Your task to perform on an android device: turn on priority inbox in the gmail app Image 0: 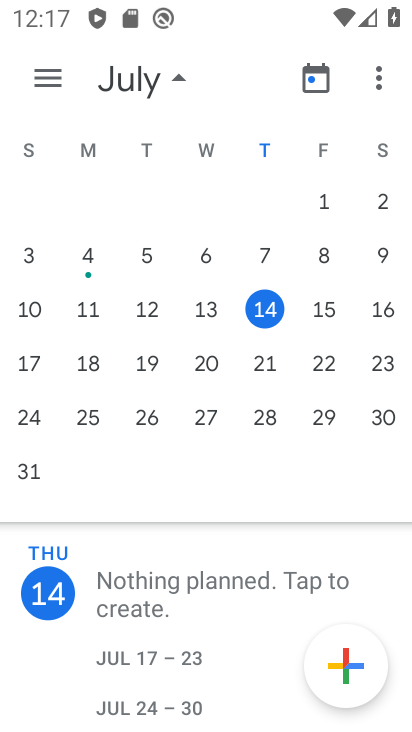
Step 0: press back button
Your task to perform on an android device: turn on priority inbox in the gmail app Image 1: 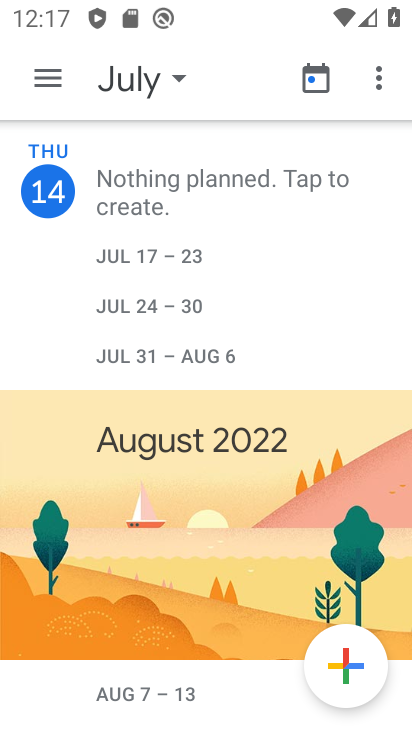
Step 1: press back button
Your task to perform on an android device: turn on priority inbox in the gmail app Image 2: 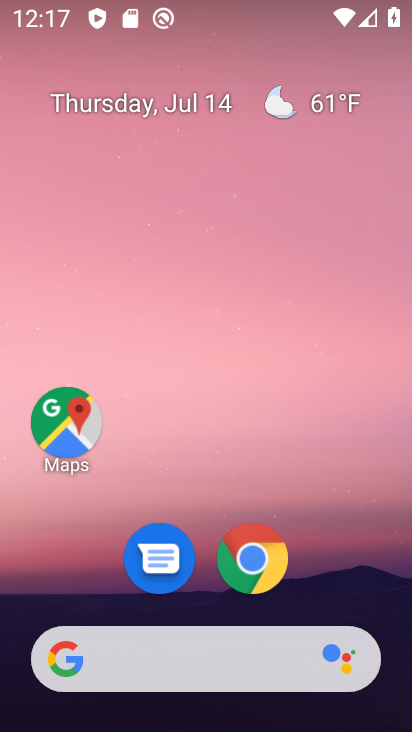
Step 2: drag from (207, 569) to (203, 55)
Your task to perform on an android device: turn on priority inbox in the gmail app Image 3: 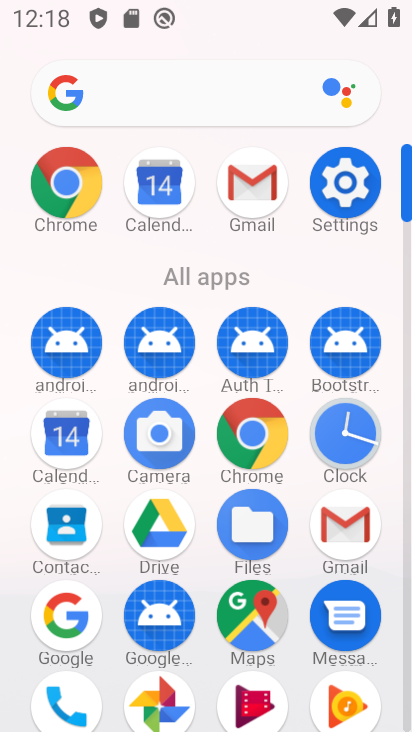
Step 3: click (252, 187)
Your task to perform on an android device: turn on priority inbox in the gmail app Image 4: 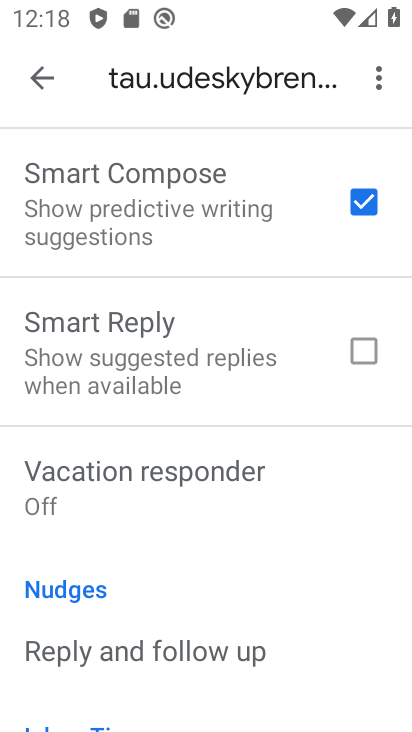
Step 4: drag from (265, 231) to (179, 728)
Your task to perform on an android device: turn on priority inbox in the gmail app Image 5: 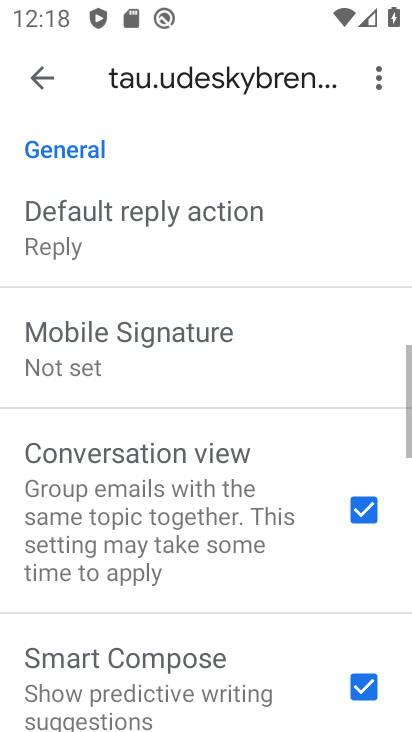
Step 5: drag from (176, 242) to (113, 731)
Your task to perform on an android device: turn on priority inbox in the gmail app Image 6: 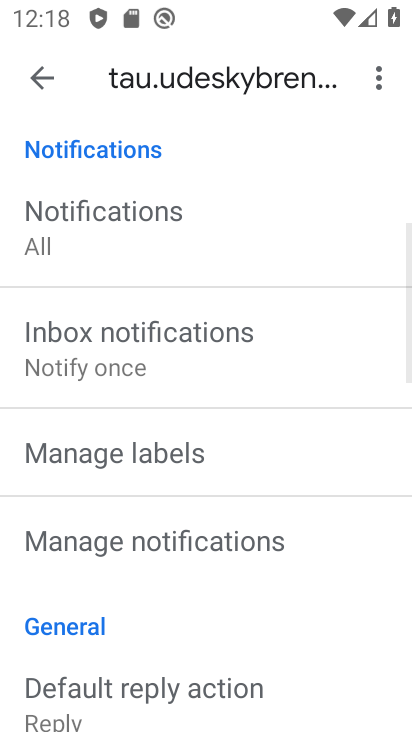
Step 6: drag from (142, 191) to (144, 684)
Your task to perform on an android device: turn on priority inbox in the gmail app Image 7: 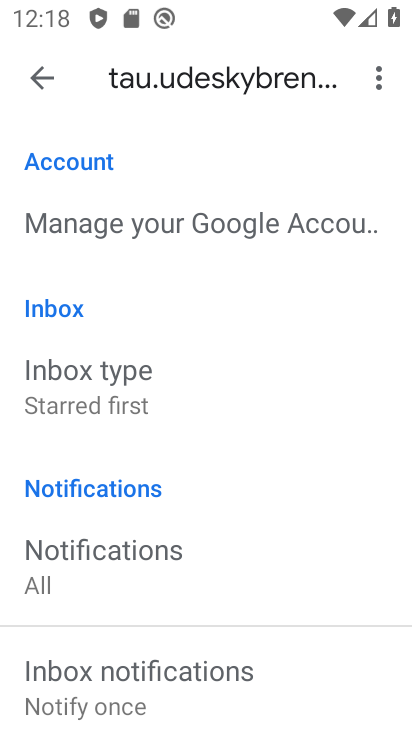
Step 7: click (102, 391)
Your task to perform on an android device: turn on priority inbox in the gmail app Image 8: 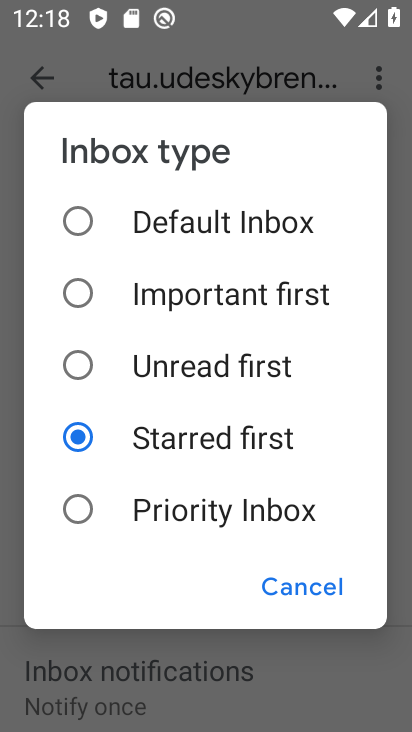
Step 8: click (77, 507)
Your task to perform on an android device: turn on priority inbox in the gmail app Image 9: 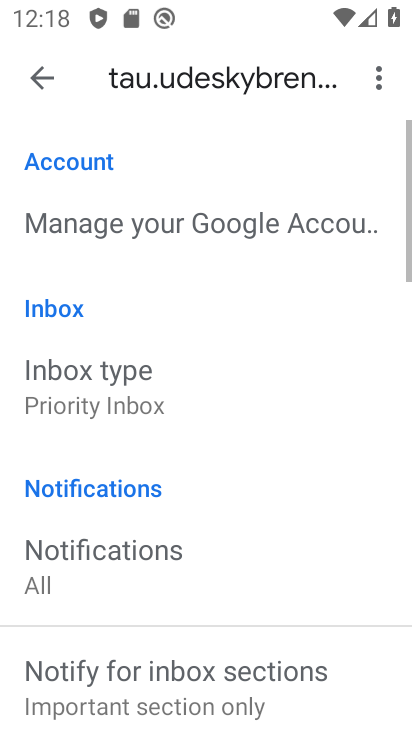
Step 9: task complete